Your task to perform on an android device: toggle wifi Image 0: 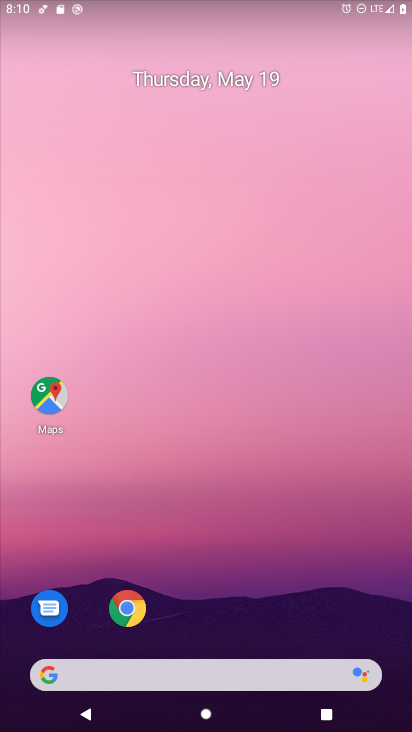
Step 0: drag from (396, 649) to (370, 67)
Your task to perform on an android device: toggle wifi Image 1: 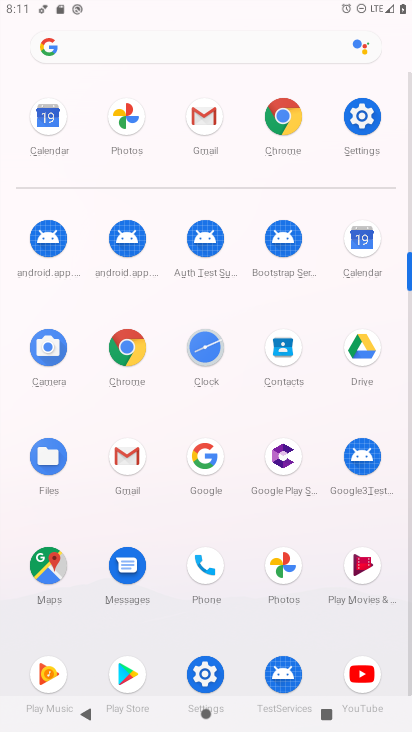
Step 1: click (361, 107)
Your task to perform on an android device: toggle wifi Image 2: 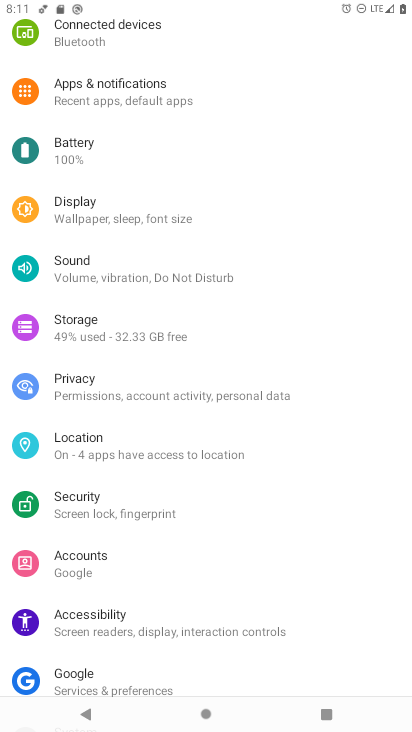
Step 2: drag from (361, 107) to (349, 416)
Your task to perform on an android device: toggle wifi Image 3: 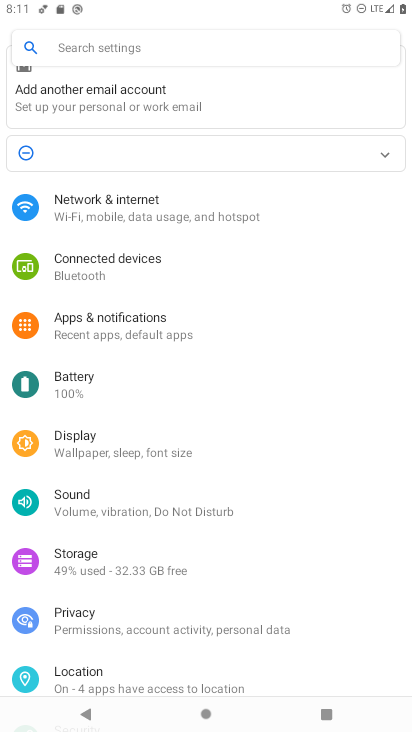
Step 3: click (122, 206)
Your task to perform on an android device: toggle wifi Image 4: 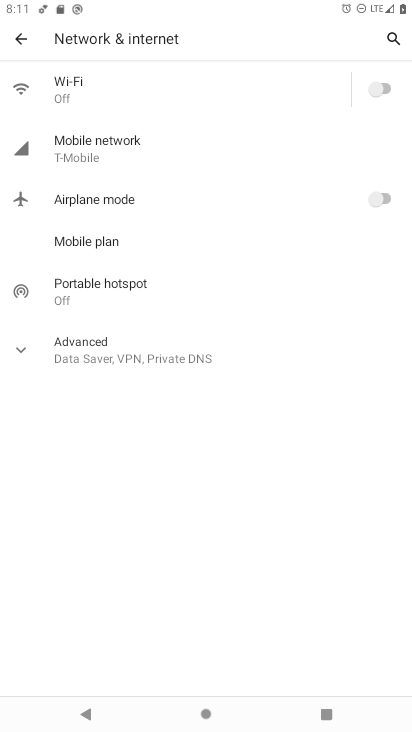
Step 4: click (382, 84)
Your task to perform on an android device: toggle wifi Image 5: 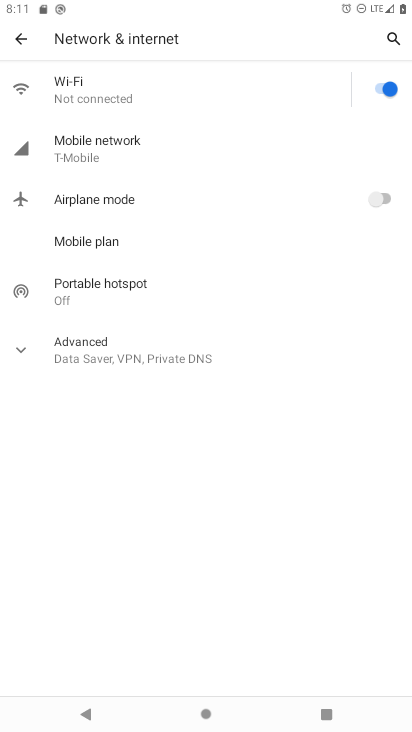
Step 5: task complete